Your task to perform on an android device: refresh tabs in the chrome app Image 0: 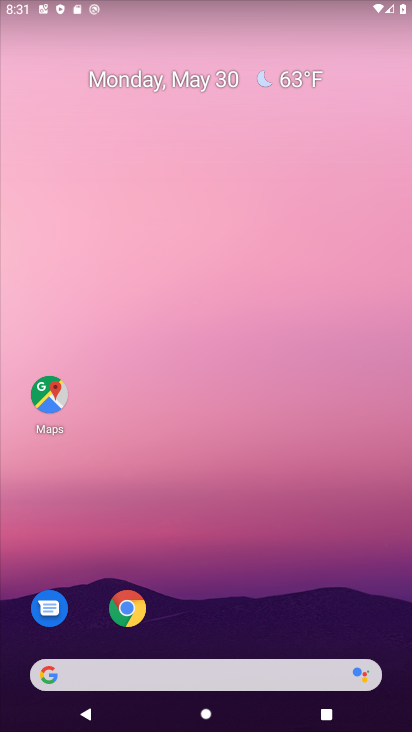
Step 0: drag from (401, 698) to (300, 82)
Your task to perform on an android device: refresh tabs in the chrome app Image 1: 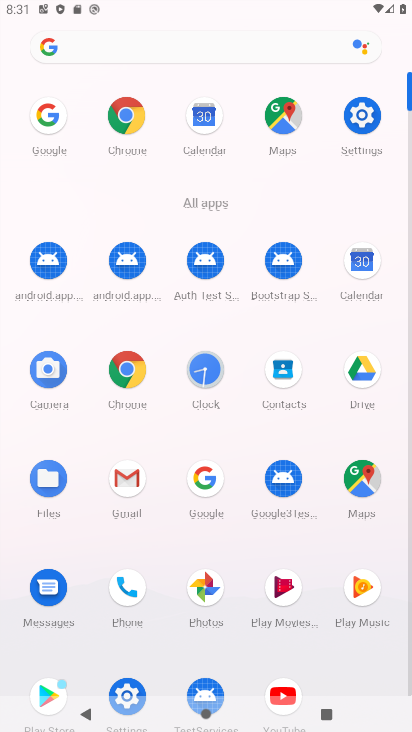
Step 1: click (131, 371)
Your task to perform on an android device: refresh tabs in the chrome app Image 2: 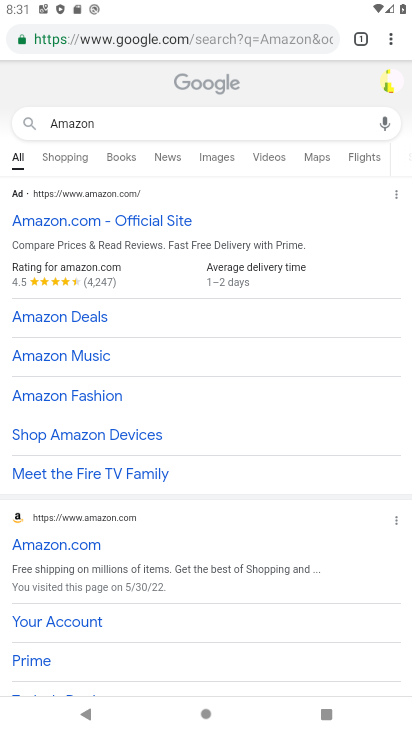
Step 2: click (385, 36)
Your task to perform on an android device: refresh tabs in the chrome app Image 3: 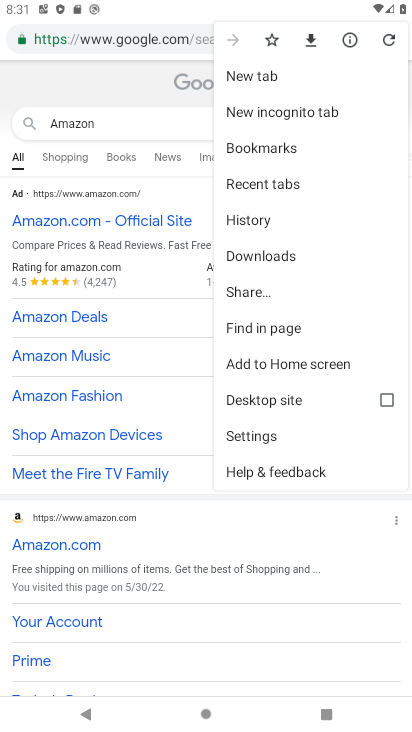
Step 3: click (249, 73)
Your task to perform on an android device: refresh tabs in the chrome app Image 4: 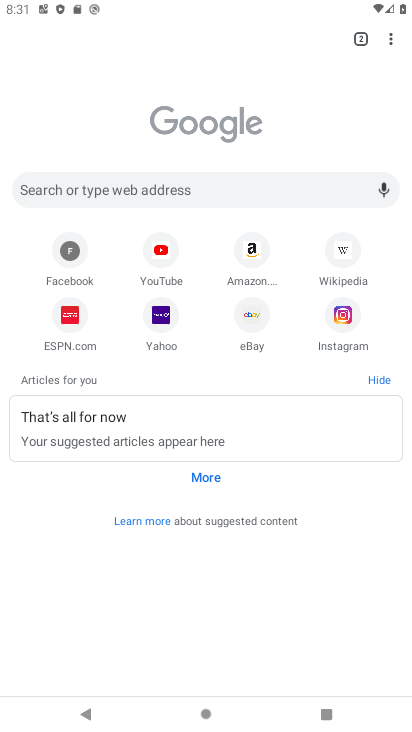
Step 4: click (391, 38)
Your task to perform on an android device: refresh tabs in the chrome app Image 5: 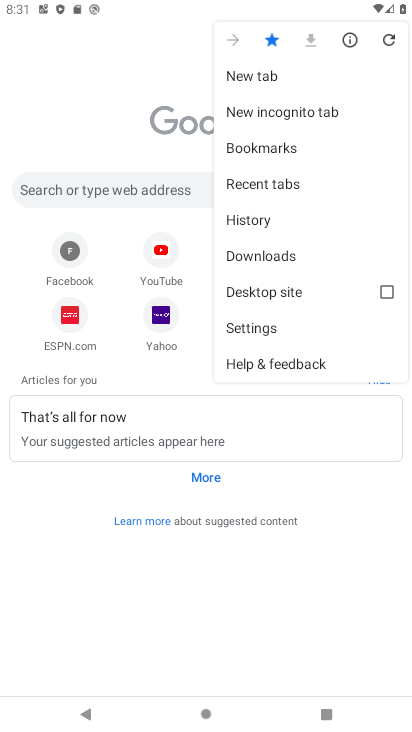
Step 5: click (385, 41)
Your task to perform on an android device: refresh tabs in the chrome app Image 6: 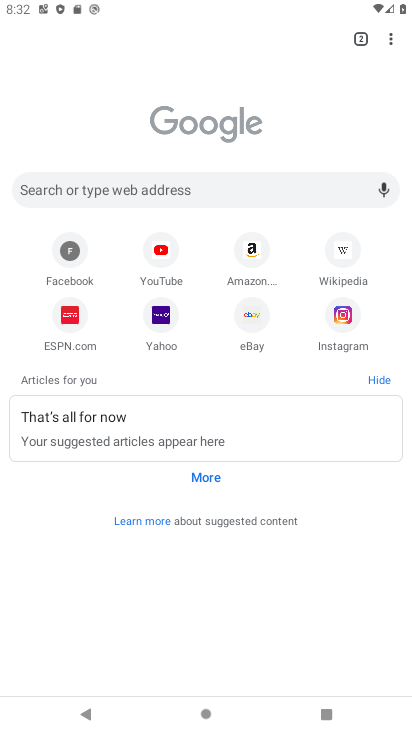
Step 6: task complete